Your task to perform on an android device: What's the weather going to be this weekend? Image 0: 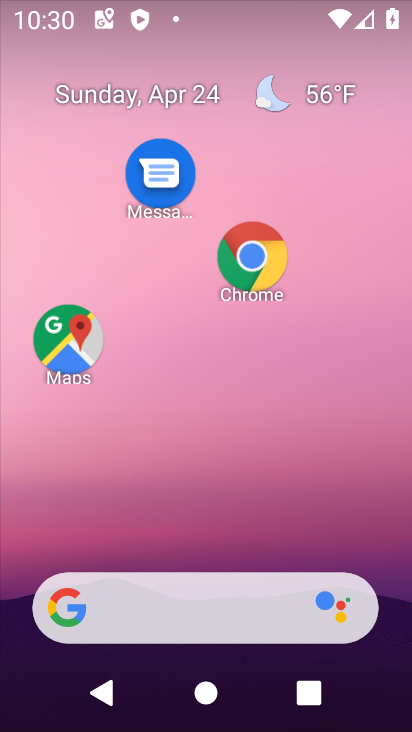
Step 0: click (271, 93)
Your task to perform on an android device: What's the weather going to be this weekend? Image 1: 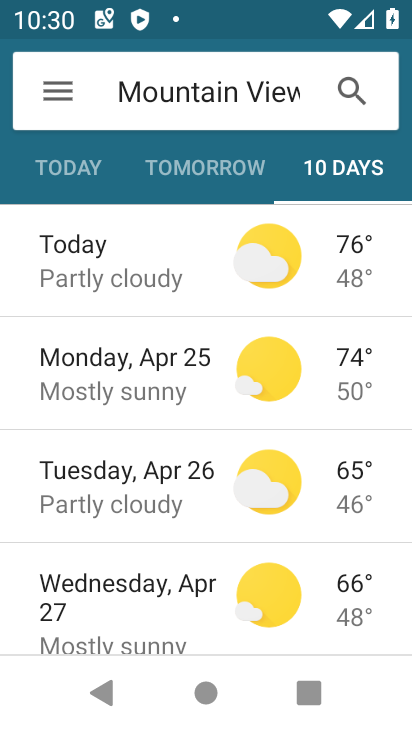
Step 1: task complete